Your task to perform on an android device: set the timer Image 0: 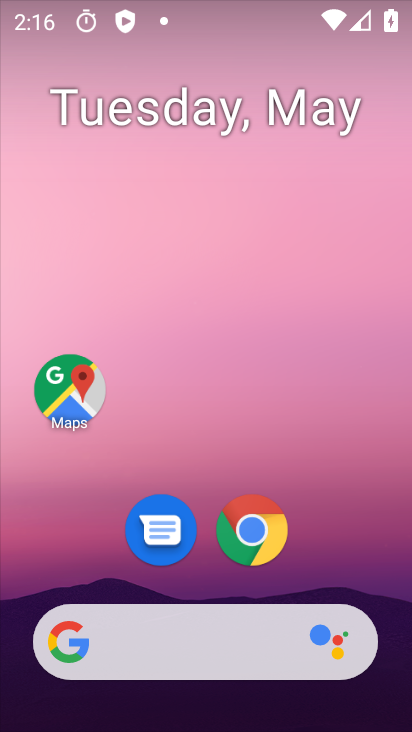
Step 0: drag from (262, 601) to (231, 0)
Your task to perform on an android device: set the timer Image 1: 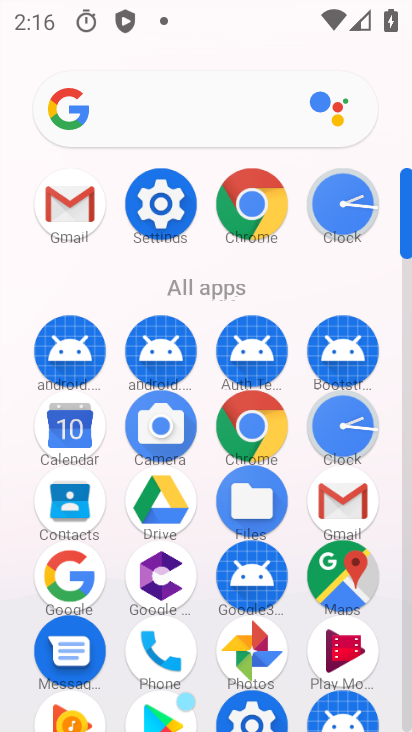
Step 1: click (333, 429)
Your task to perform on an android device: set the timer Image 2: 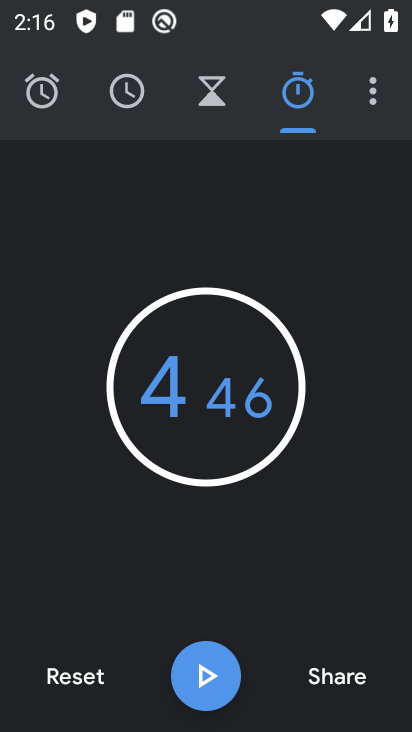
Step 2: click (368, 101)
Your task to perform on an android device: set the timer Image 3: 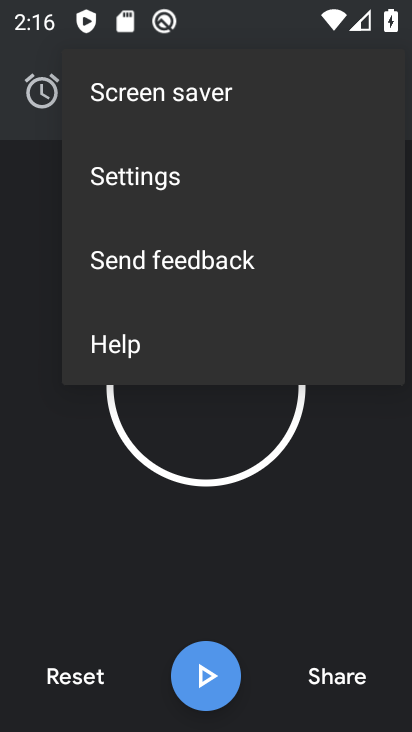
Step 3: click (196, 547)
Your task to perform on an android device: set the timer Image 4: 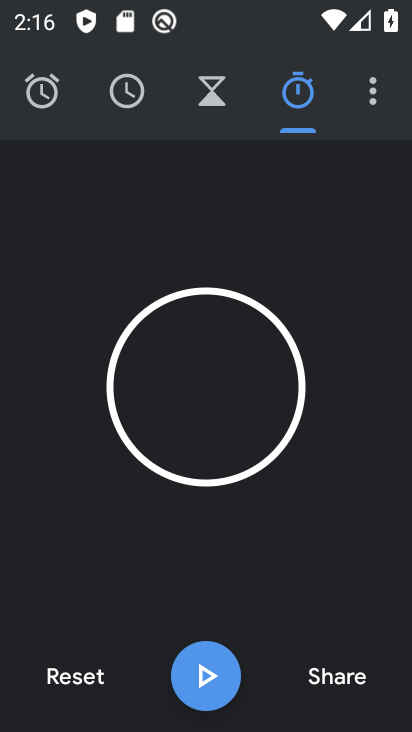
Step 4: click (206, 86)
Your task to perform on an android device: set the timer Image 5: 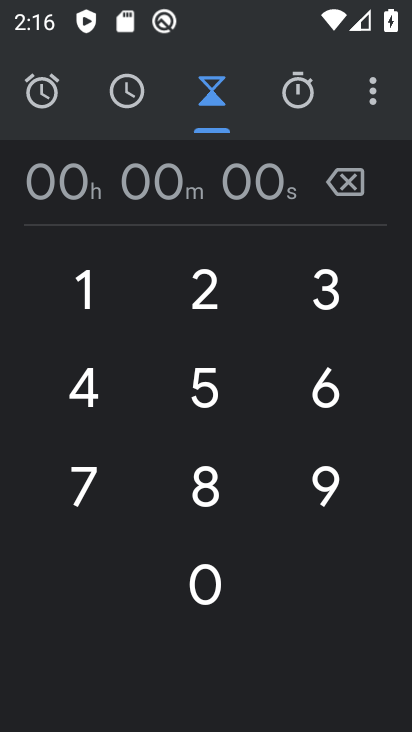
Step 5: click (213, 287)
Your task to perform on an android device: set the timer Image 6: 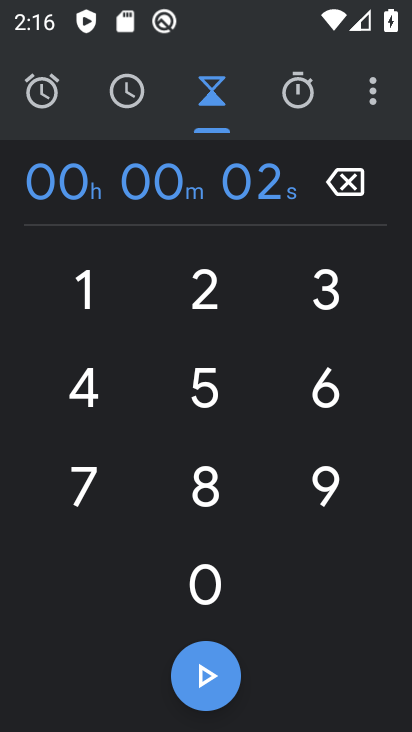
Step 6: click (180, 401)
Your task to perform on an android device: set the timer Image 7: 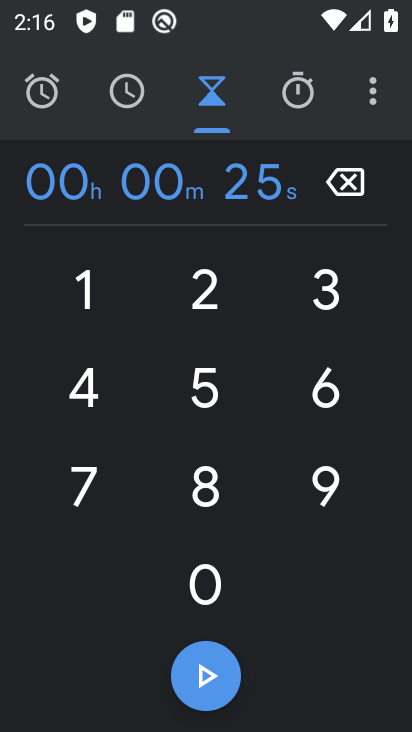
Step 7: task complete